Your task to perform on an android device: open a bookmark in the chrome app Image 0: 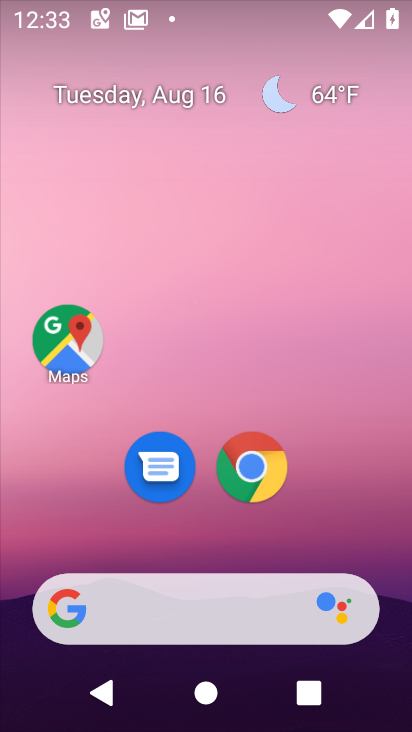
Step 0: drag from (356, 558) to (388, 191)
Your task to perform on an android device: open a bookmark in the chrome app Image 1: 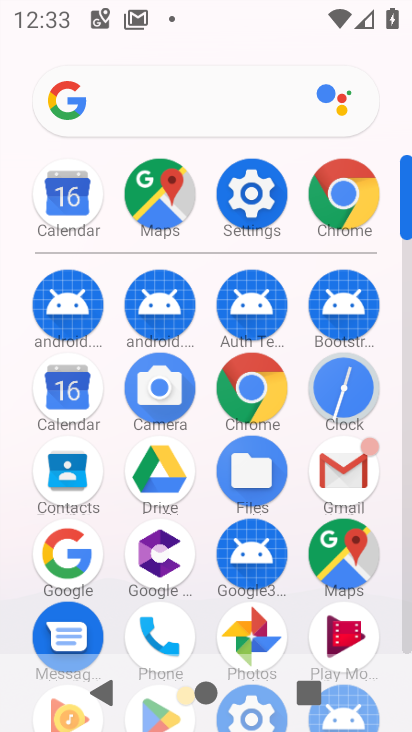
Step 1: click (257, 393)
Your task to perform on an android device: open a bookmark in the chrome app Image 2: 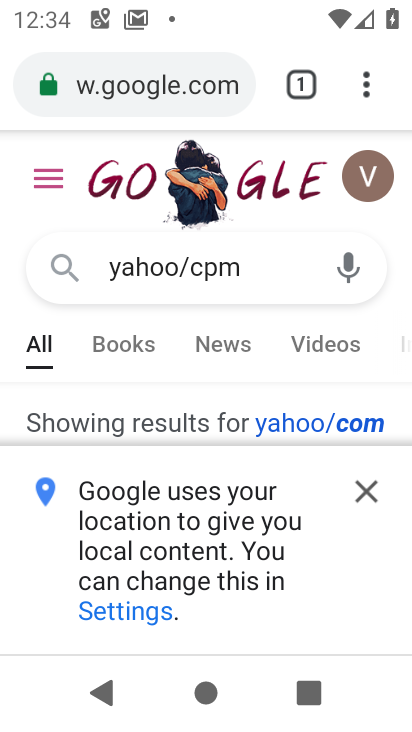
Step 2: click (366, 87)
Your task to perform on an android device: open a bookmark in the chrome app Image 3: 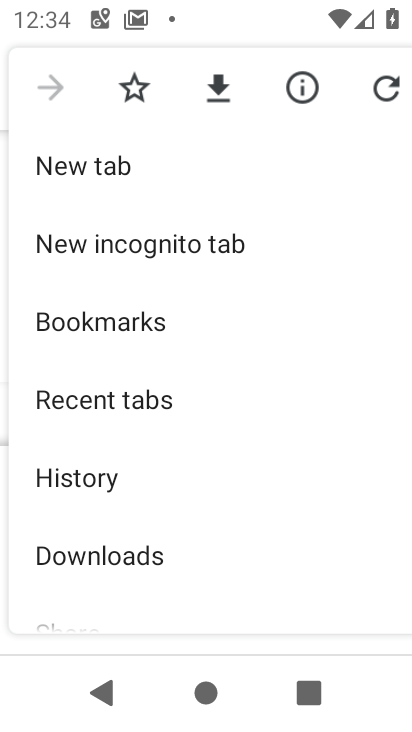
Step 3: click (190, 322)
Your task to perform on an android device: open a bookmark in the chrome app Image 4: 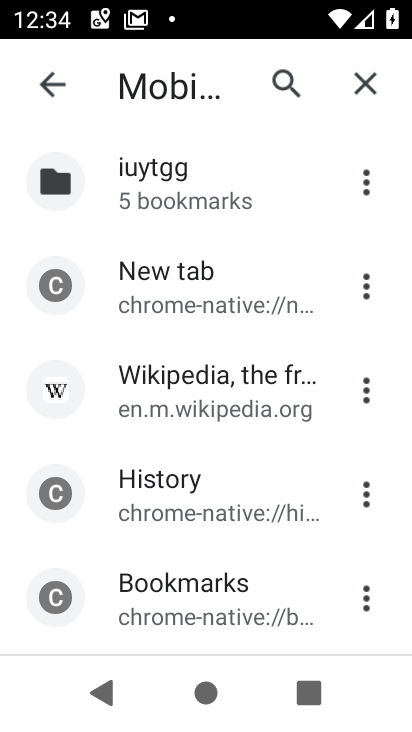
Step 4: click (194, 189)
Your task to perform on an android device: open a bookmark in the chrome app Image 5: 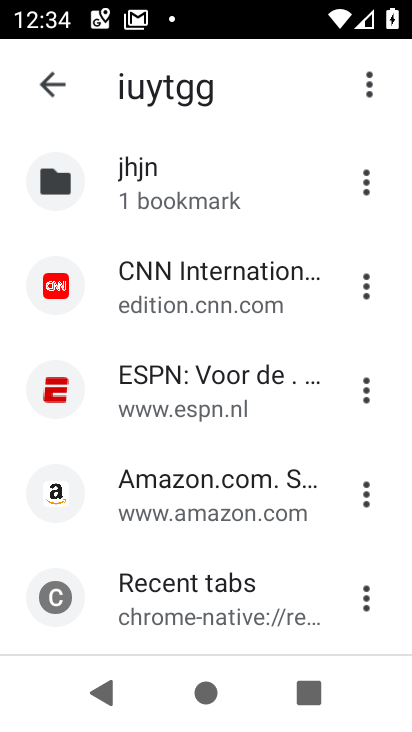
Step 5: click (209, 309)
Your task to perform on an android device: open a bookmark in the chrome app Image 6: 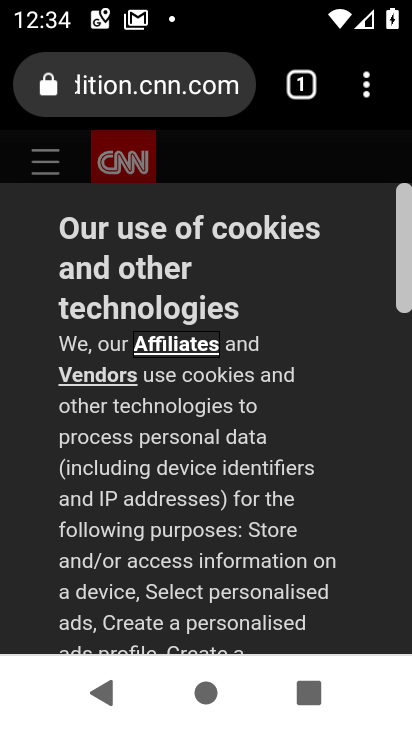
Step 6: task complete